Your task to perform on an android device: Go to Amazon Image 0: 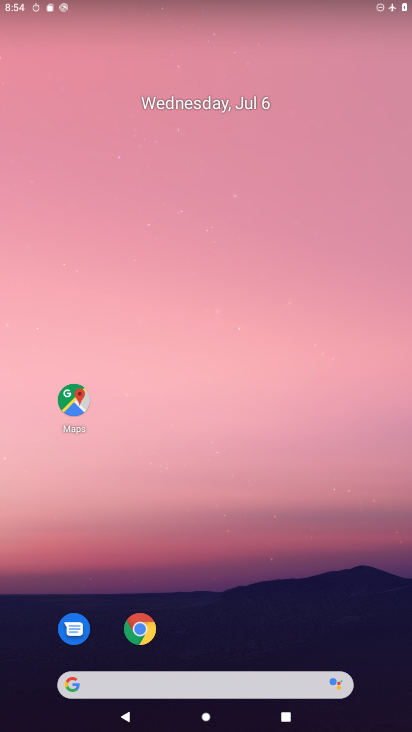
Step 0: click (141, 631)
Your task to perform on an android device: Go to Amazon Image 1: 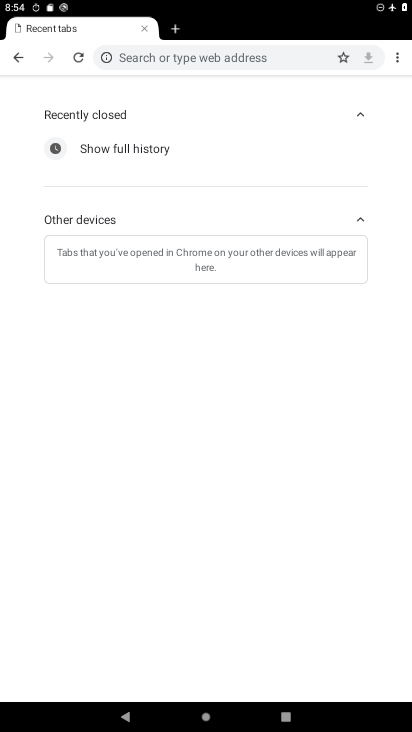
Step 1: click (15, 58)
Your task to perform on an android device: Go to Amazon Image 2: 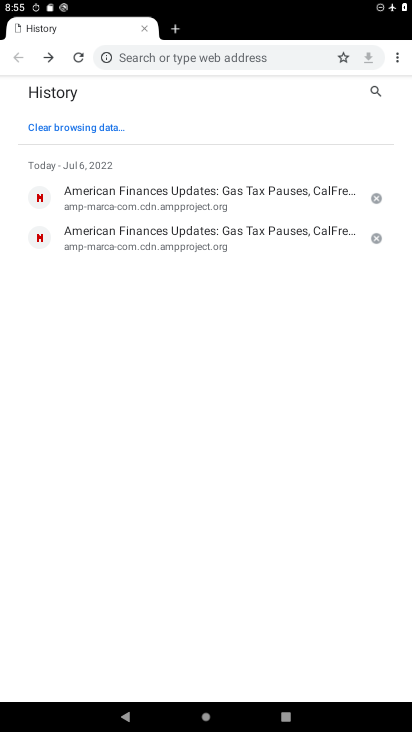
Step 2: click (398, 59)
Your task to perform on an android device: Go to Amazon Image 3: 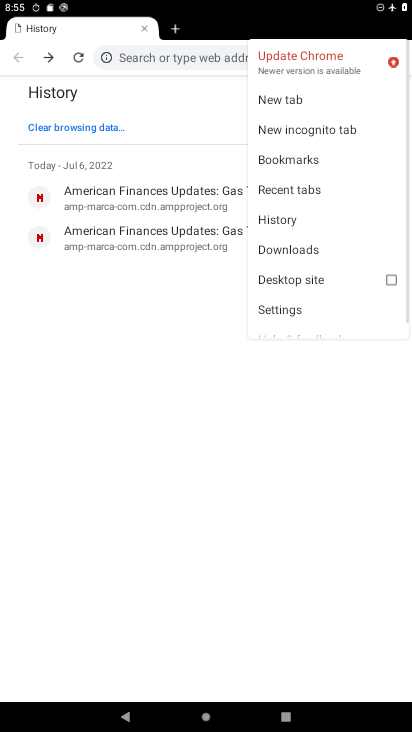
Step 3: click (281, 91)
Your task to perform on an android device: Go to Amazon Image 4: 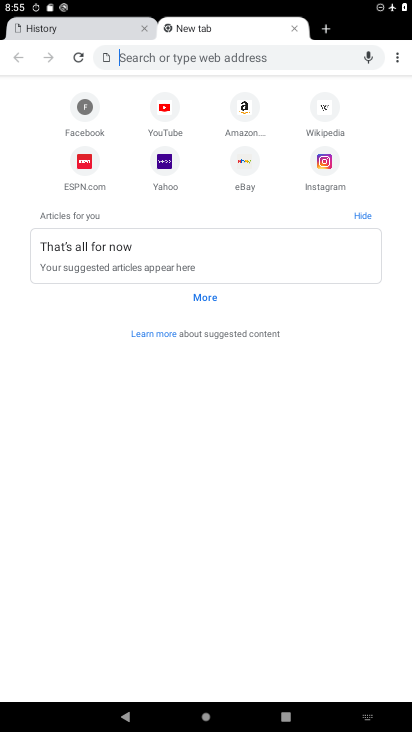
Step 4: click (243, 116)
Your task to perform on an android device: Go to Amazon Image 5: 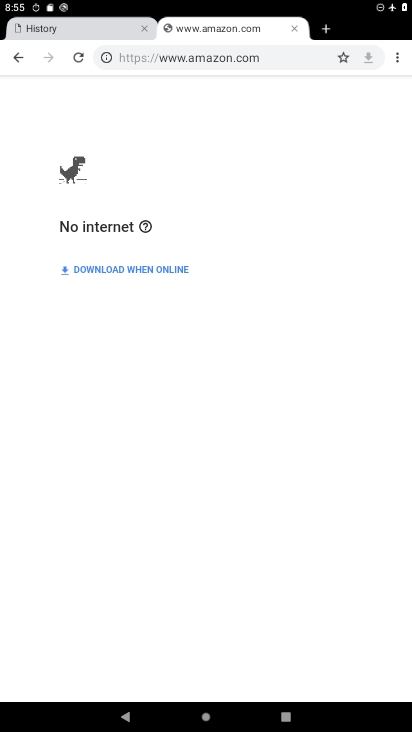
Step 5: task complete